Your task to perform on an android device: Open the web browser Image 0: 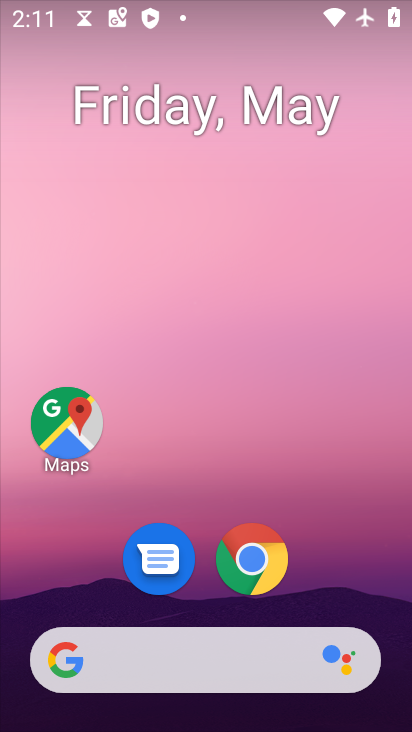
Step 0: click (280, 582)
Your task to perform on an android device: Open the web browser Image 1: 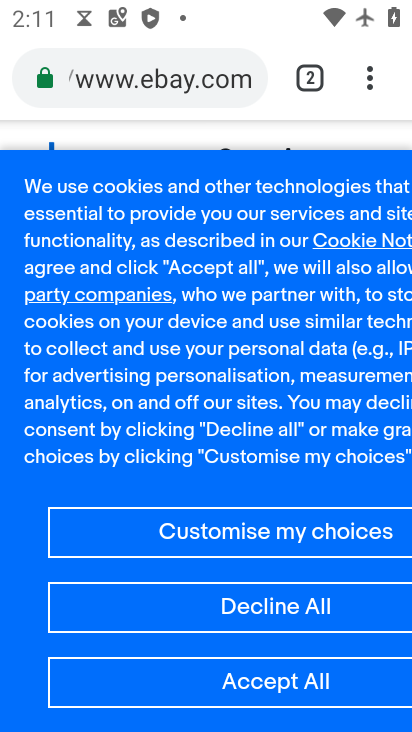
Step 1: task complete